Your task to perform on an android device: Open Google Chrome Image 0: 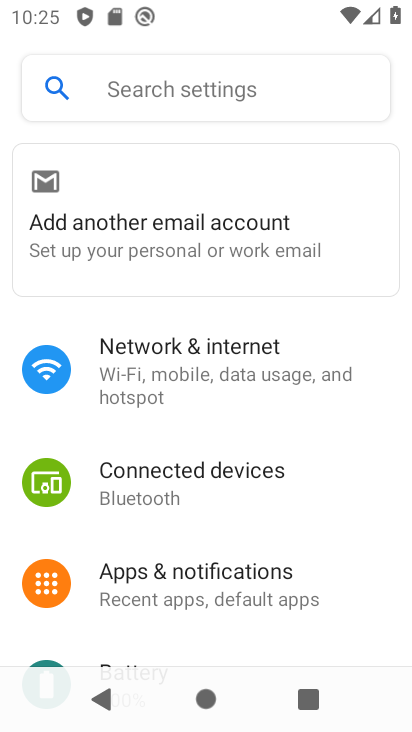
Step 0: press home button
Your task to perform on an android device: Open Google Chrome Image 1: 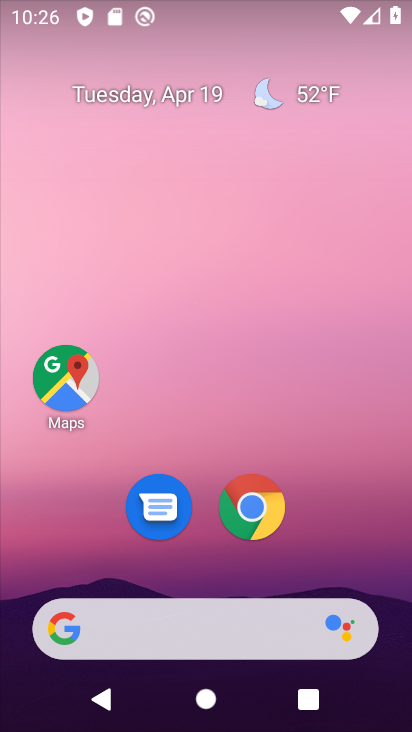
Step 1: drag from (371, 549) to (363, 116)
Your task to perform on an android device: Open Google Chrome Image 2: 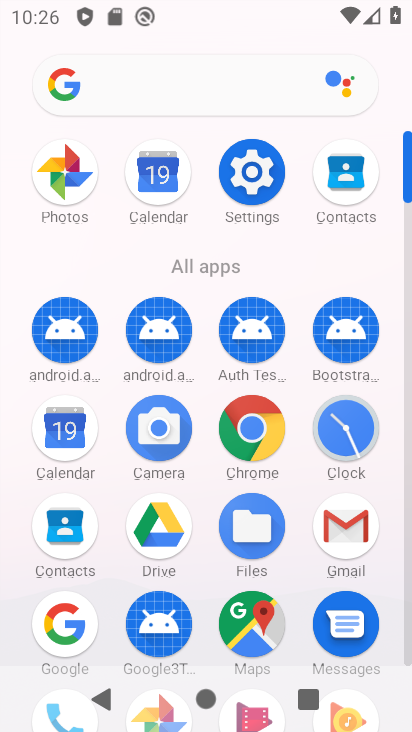
Step 2: click (264, 429)
Your task to perform on an android device: Open Google Chrome Image 3: 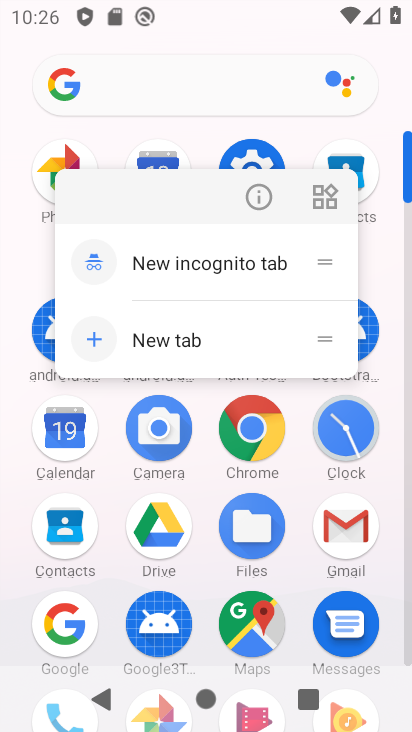
Step 3: click (264, 429)
Your task to perform on an android device: Open Google Chrome Image 4: 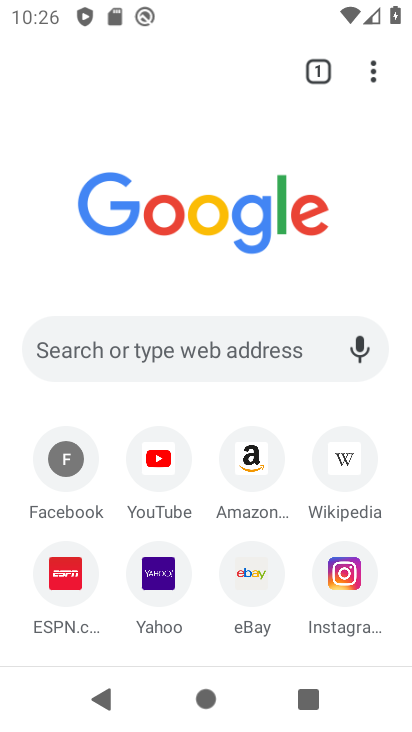
Step 4: task complete